Your task to perform on an android device: Open Amazon Image 0: 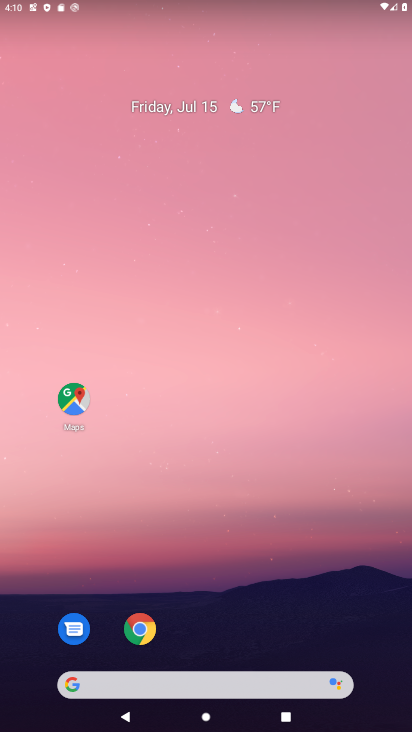
Step 0: press home button
Your task to perform on an android device: Open Amazon Image 1: 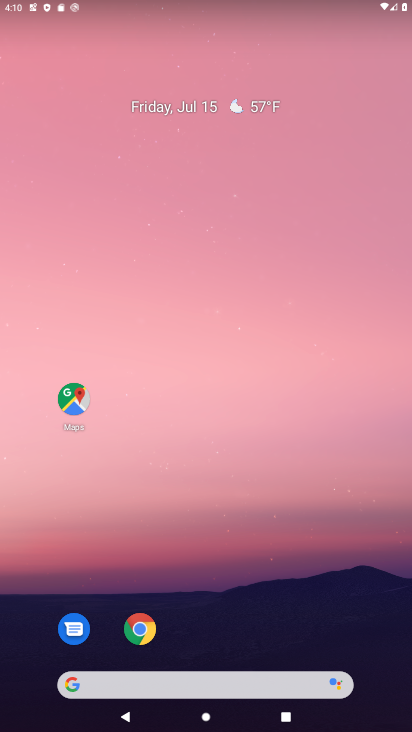
Step 1: click (66, 684)
Your task to perform on an android device: Open Amazon Image 2: 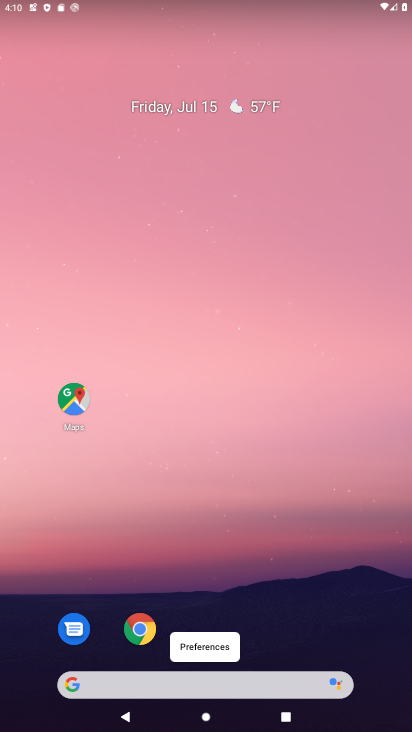
Step 2: click (70, 681)
Your task to perform on an android device: Open Amazon Image 3: 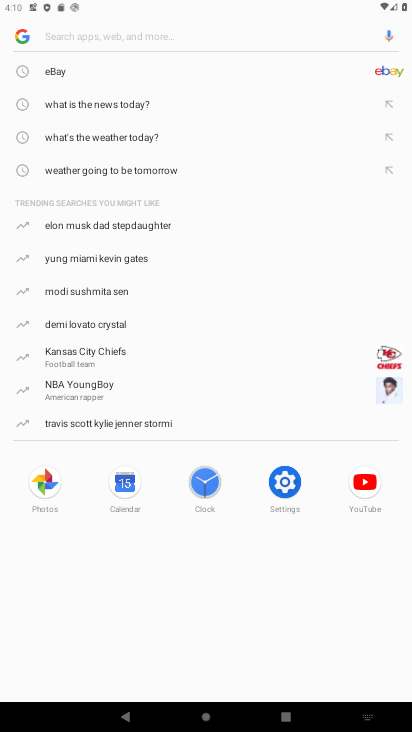
Step 3: type "Amazon"
Your task to perform on an android device: Open Amazon Image 4: 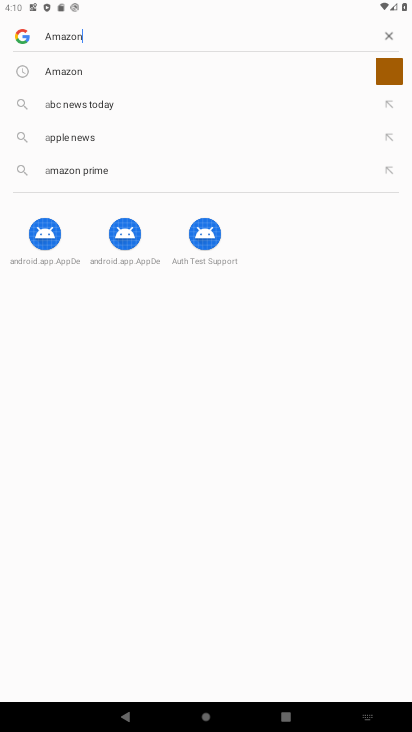
Step 4: press enter
Your task to perform on an android device: Open Amazon Image 5: 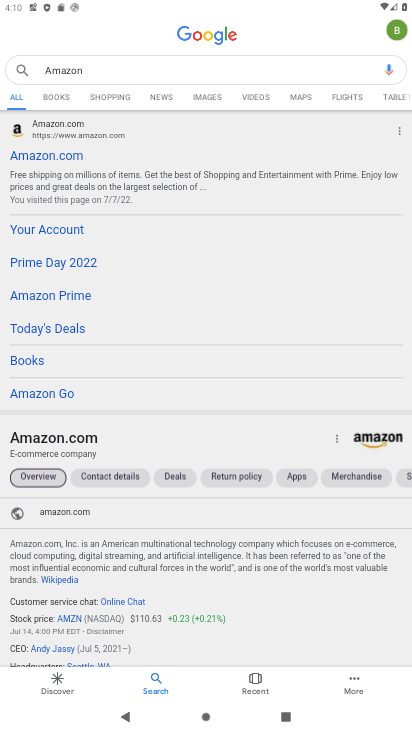
Step 5: click (42, 162)
Your task to perform on an android device: Open Amazon Image 6: 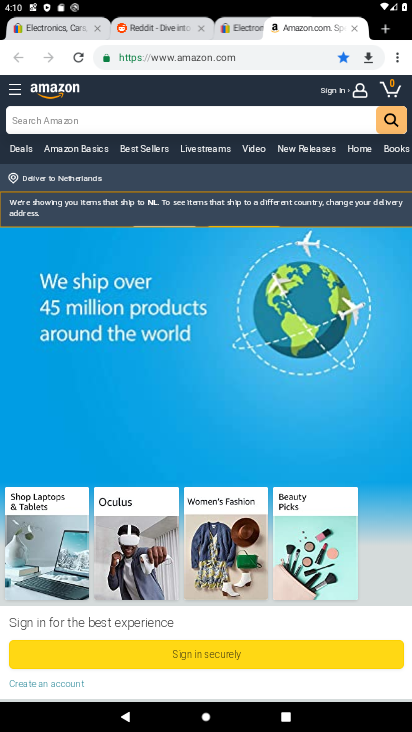
Step 6: task complete